Your task to perform on an android device: stop showing notifications on the lock screen Image 0: 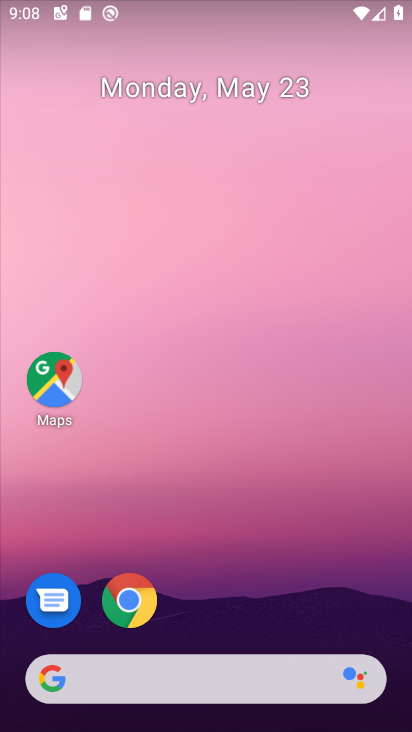
Step 0: drag from (207, 720) to (183, 109)
Your task to perform on an android device: stop showing notifications on the lock screen Image 1: 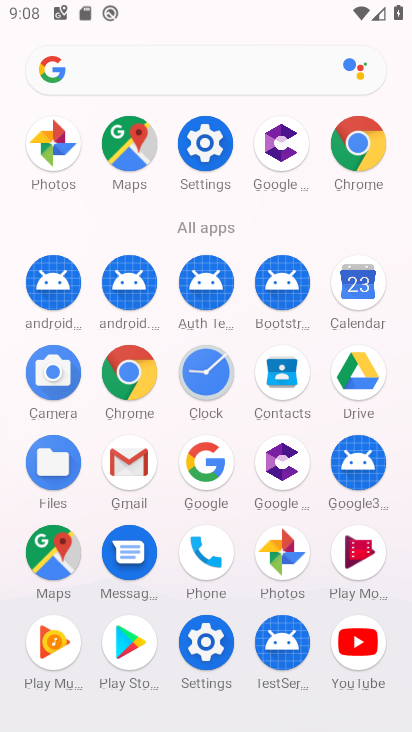
Step 1: click (207, 151)
Your task to perform on an android device: stop showing notifications on the lock screen Image 2: 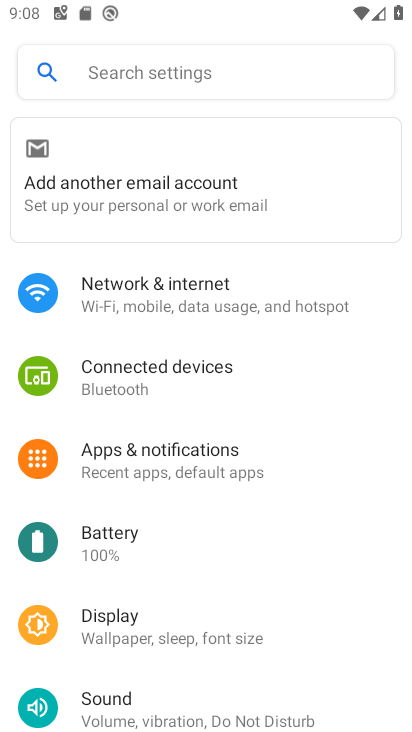
Step 2: click (171, 452)
Your task to perform on an android device: stop showing notifications on the lock screen Image 3: 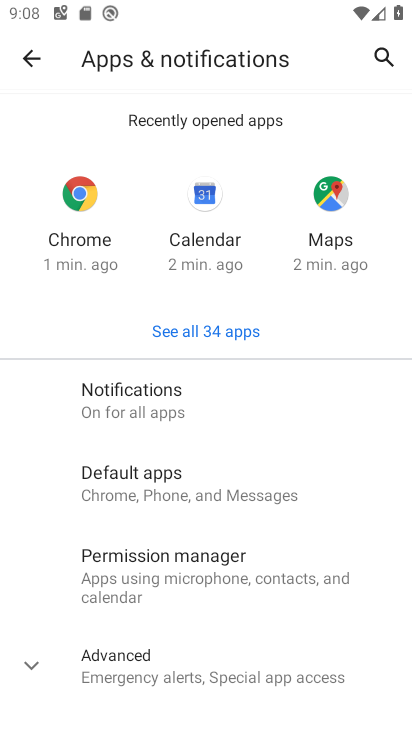
Step 3: click (140, 406)
Your task to perform on an android device: stop showing notifications on the lock screen Image 4: 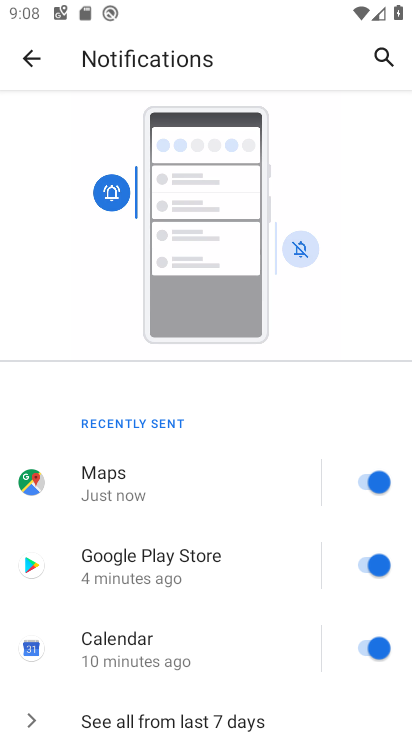
Step 4: drag from (226, 690) to (194, 308)
Your task to perform on an android device: stop showing notifications on the lock screen Image 5: 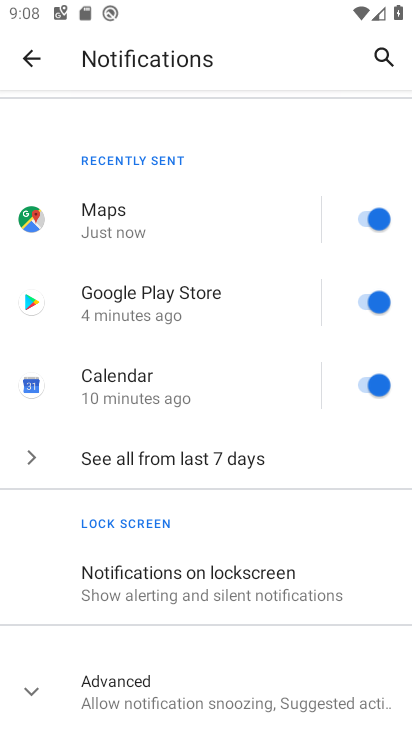
Step 5: click (147, 583)
Your task to perform on an android device: stop showing notifications on the lock screen Image 6: 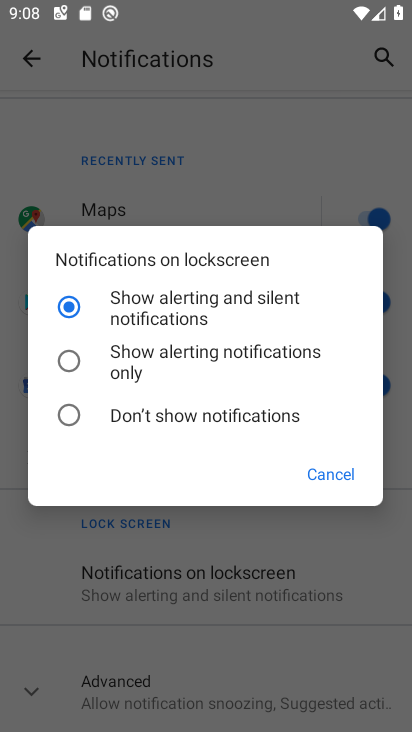
Step 6: click (67, 421)
Your task to perform on an android device: stop showing notifications on the lock screen Image 7: 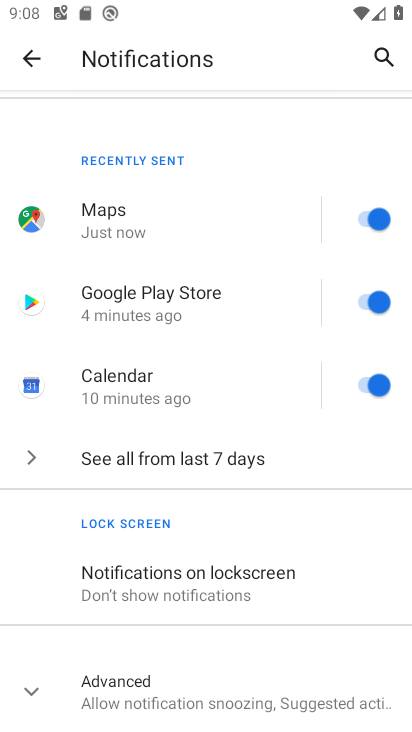
Step 7: task complete